Your task to perform on an android device: clear all cookies in the chrome app Image 0: 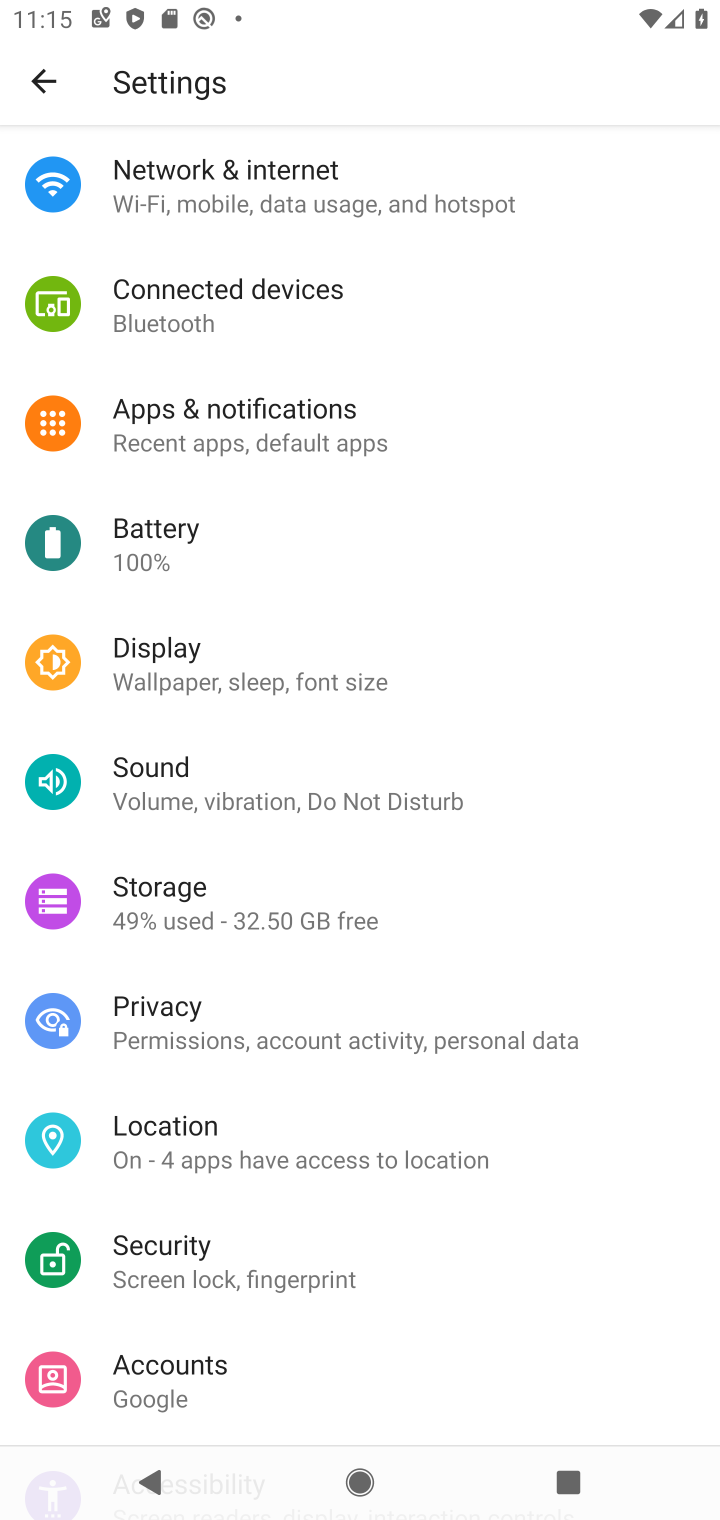
Step 0: press back button
Your task to perform on an android device: clear all cookies in the chrome app Image 1: 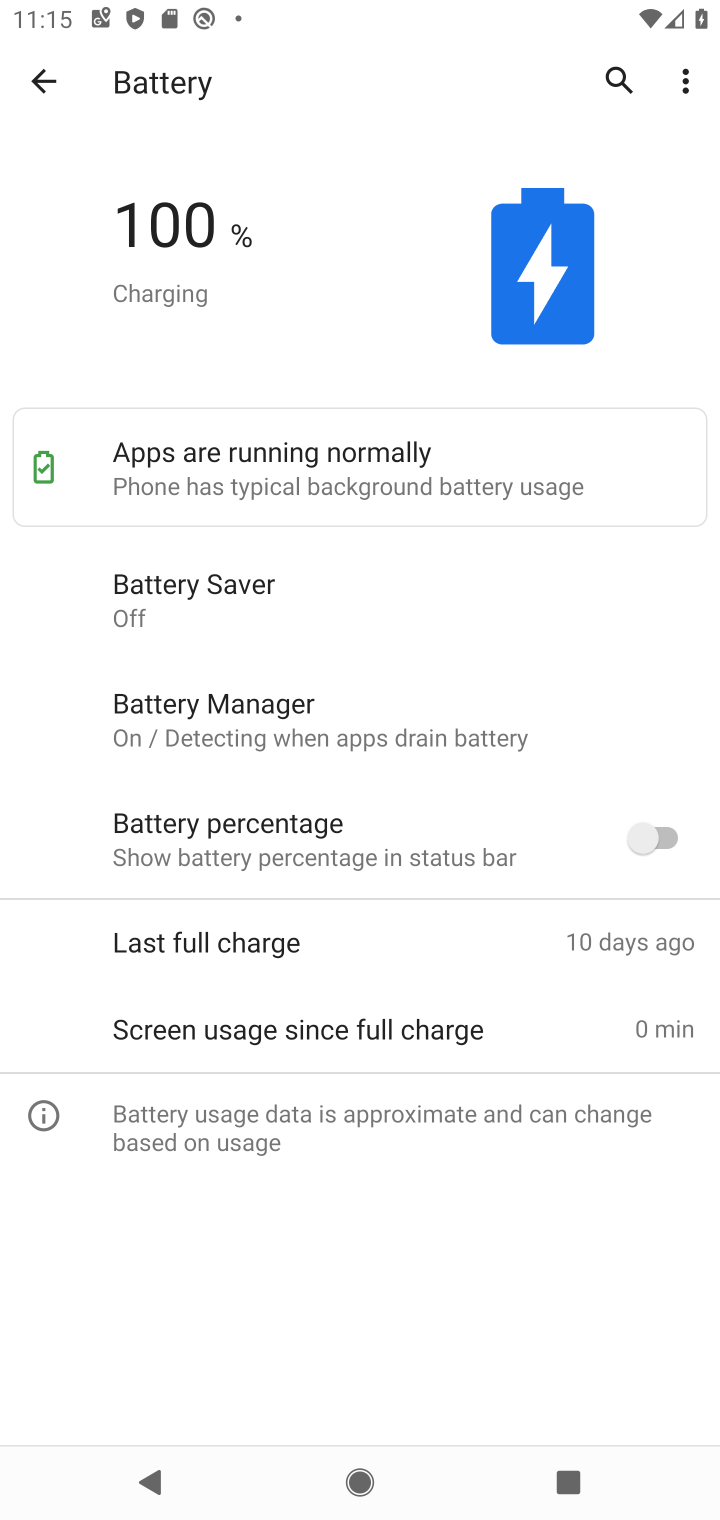
Step 1: press back button
Your task to perform on an android device: clear all cookies in the chrome app Image 2: 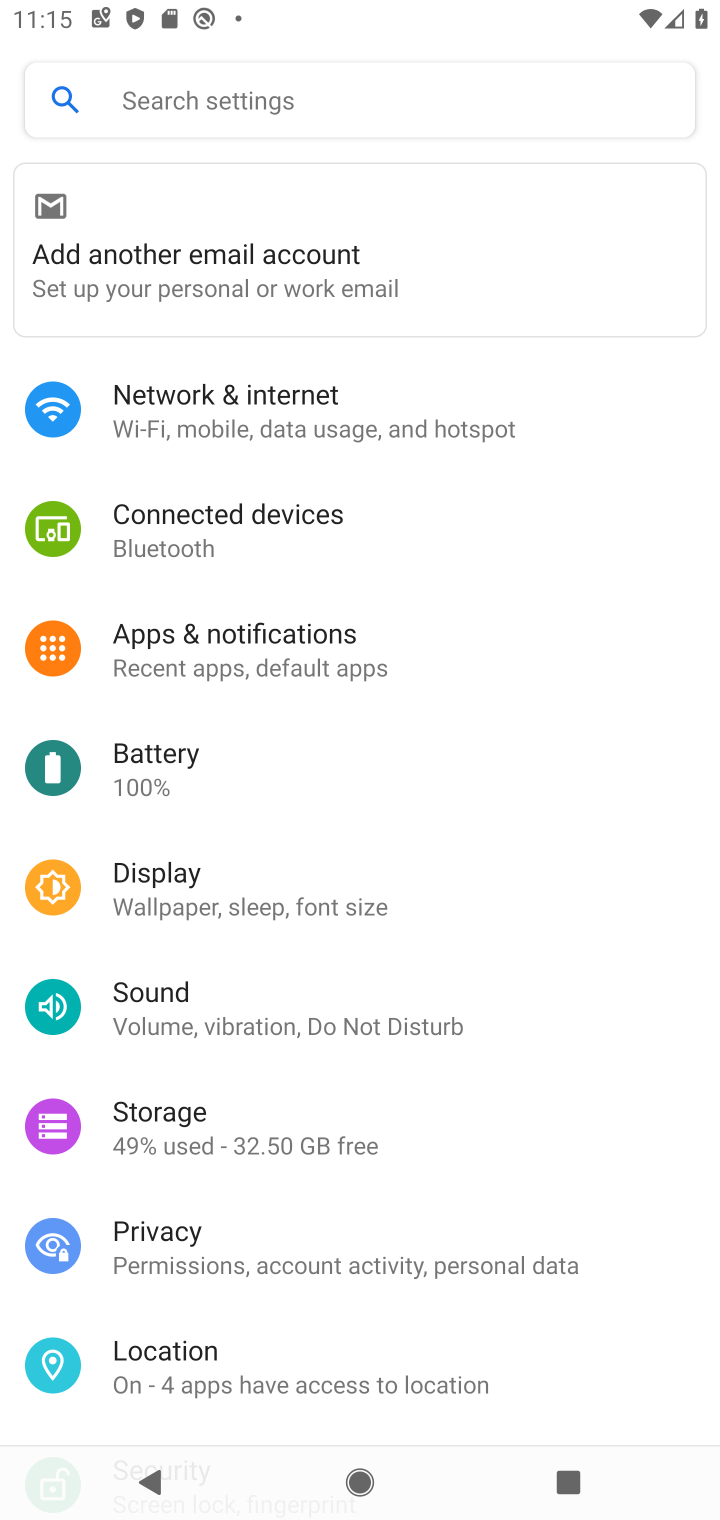
Step 2: press back button
Your task to perform on an android device: clear all cookies in the chrome app Image 3: 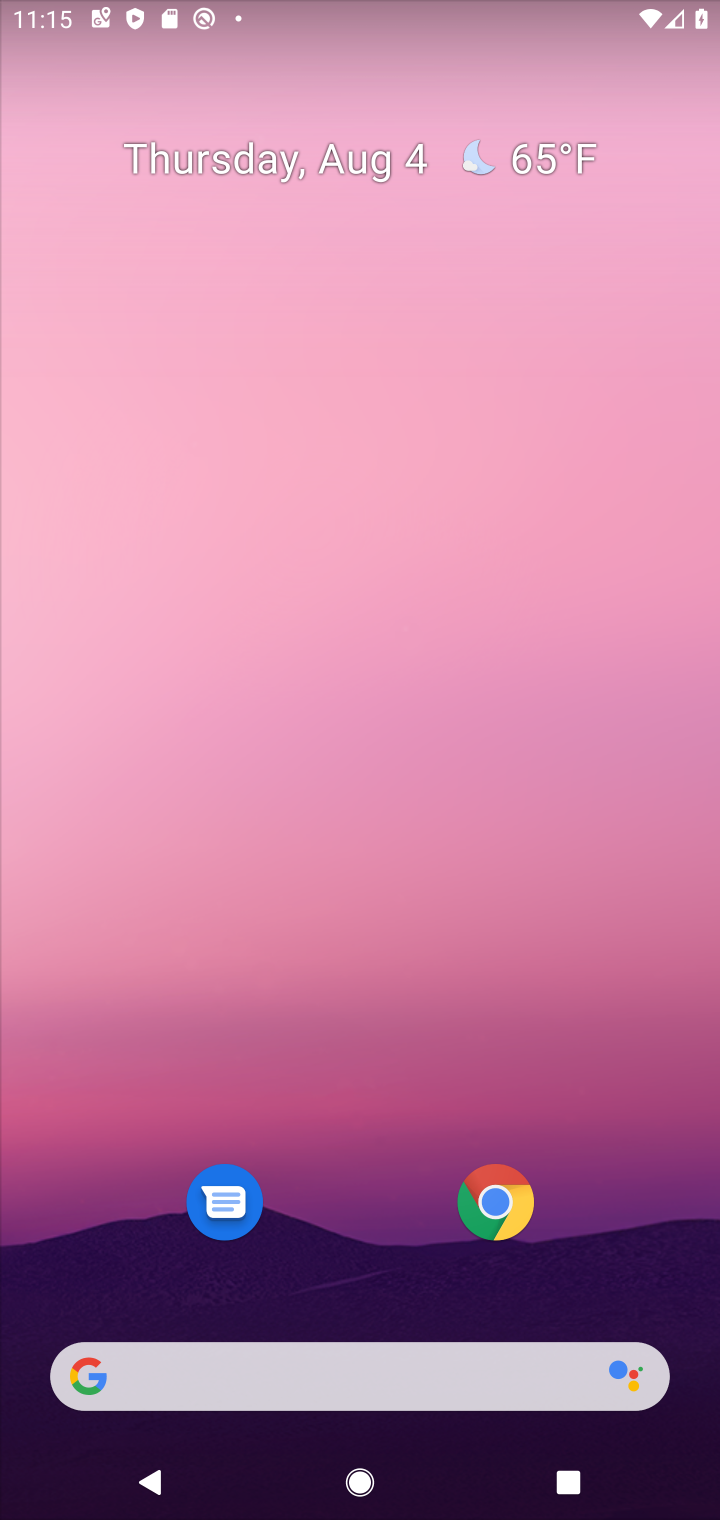
Step 3: click (537, 1202)
Your task to perform on an android device: clear all cookies in the chrome app Image 4: 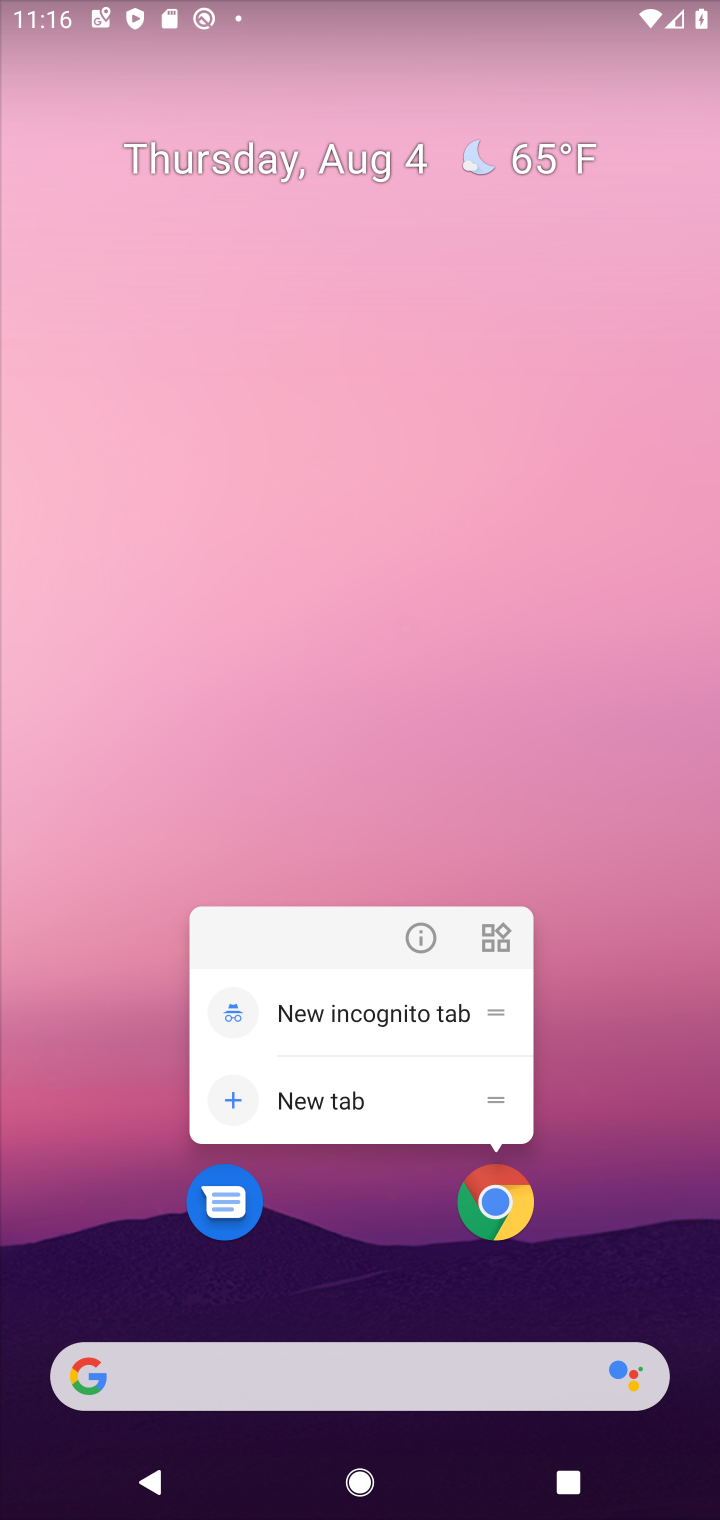
Step 4: click (528, 1201)
Your task to perform on an android device: clear all cookies in the chrome app Image 5: 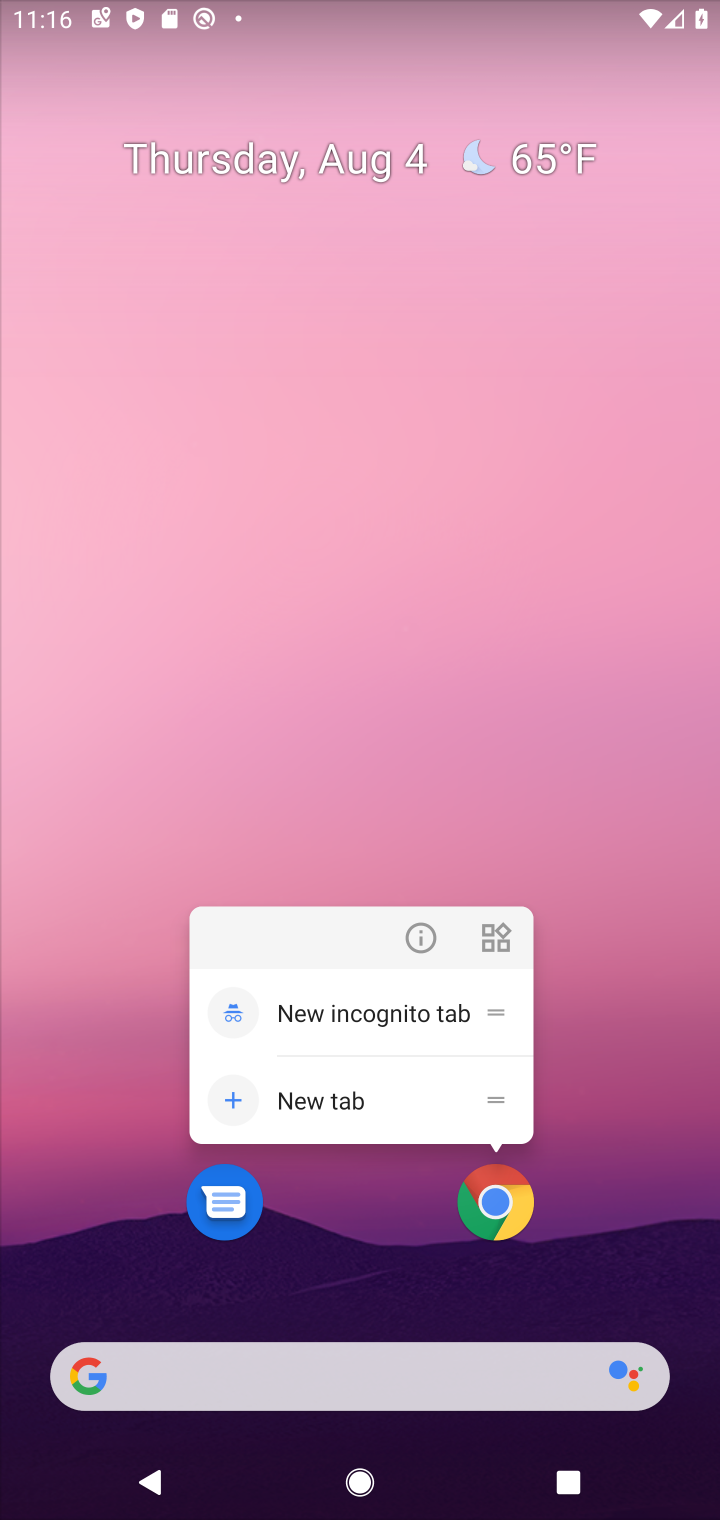
Step 5: click (508, 1203)
Your task to perform on an android device: clear all cookies in the chrome app Image 6: 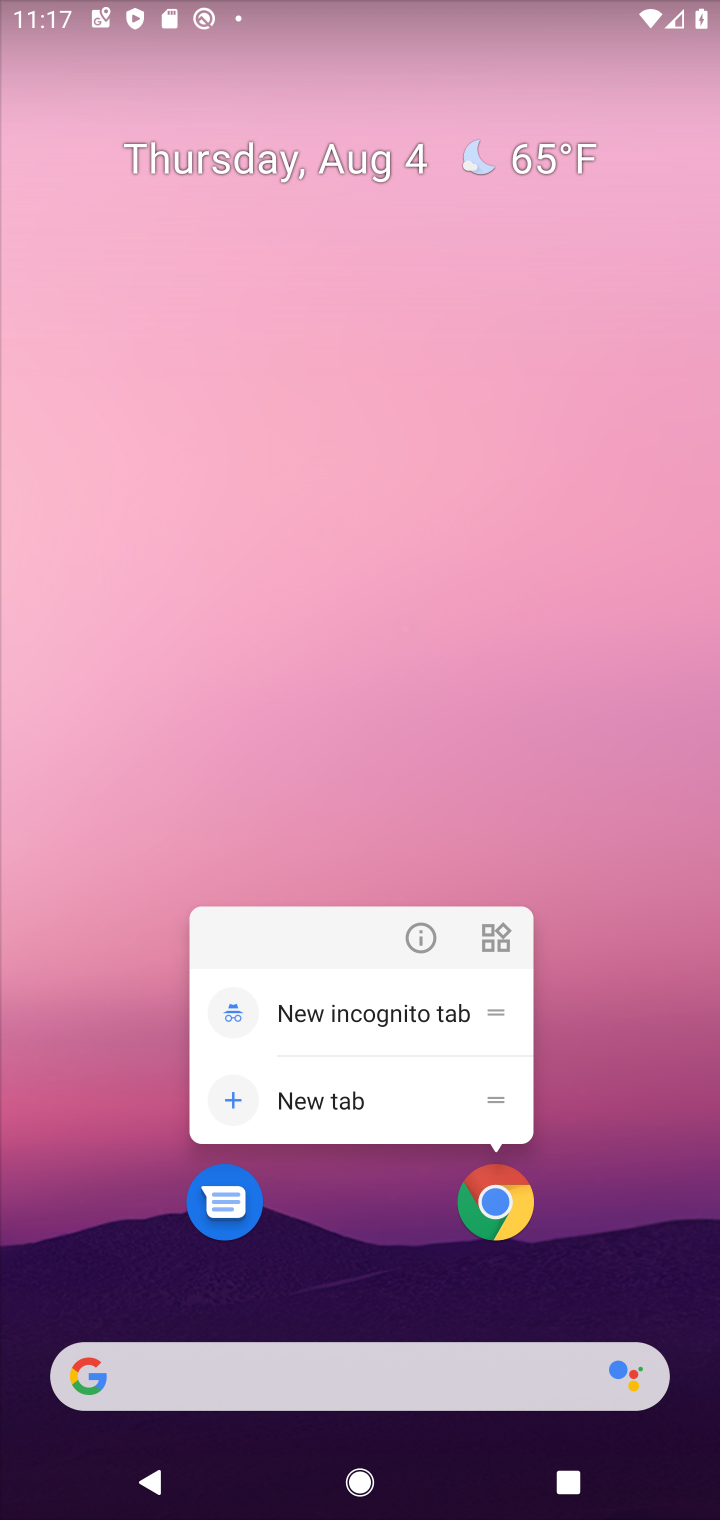
Step 6: click (459, 1223)
Your task to perform on an android device: clear all cookies in the chrome app Image 7: 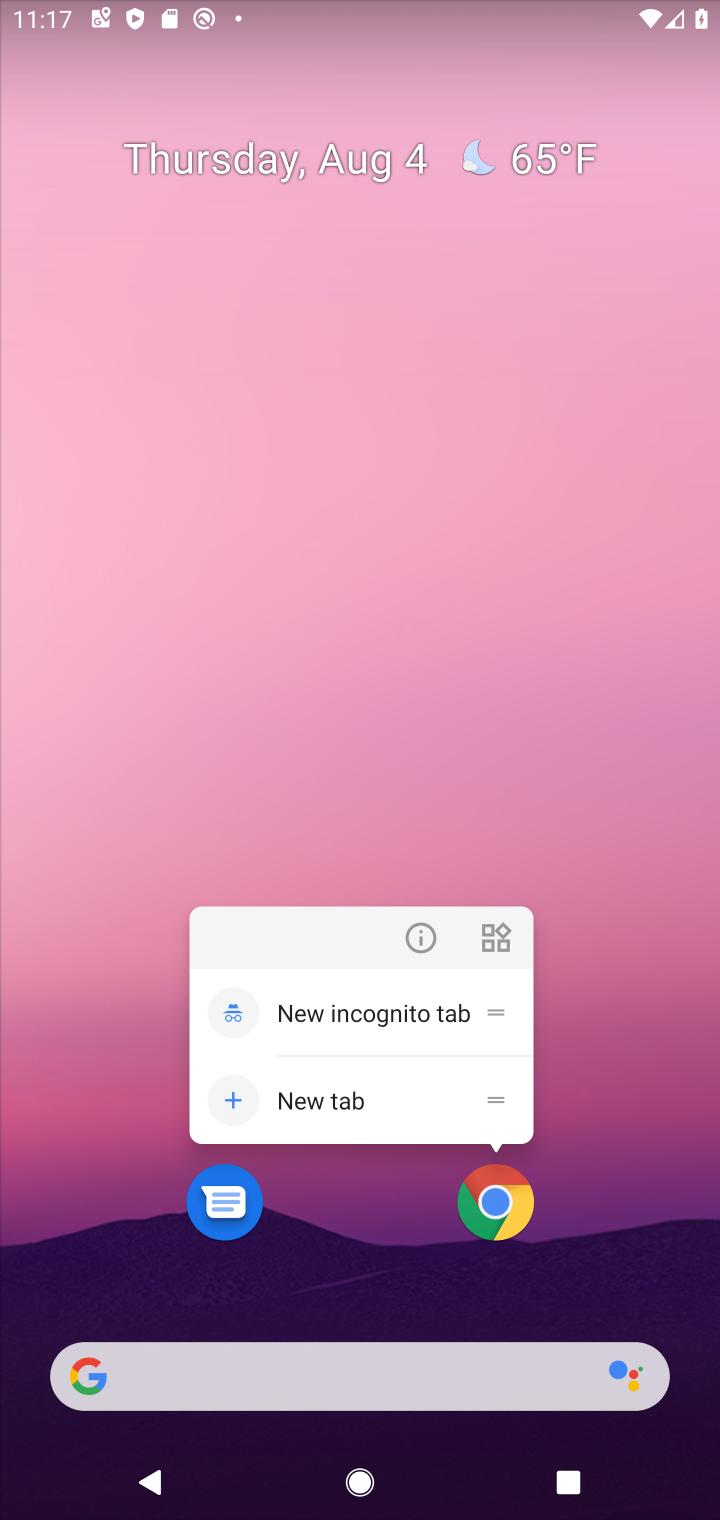
Step 7: click (499, 1184)
Your task to perform on an android device: clear all cookies in the chrome app Image 8: 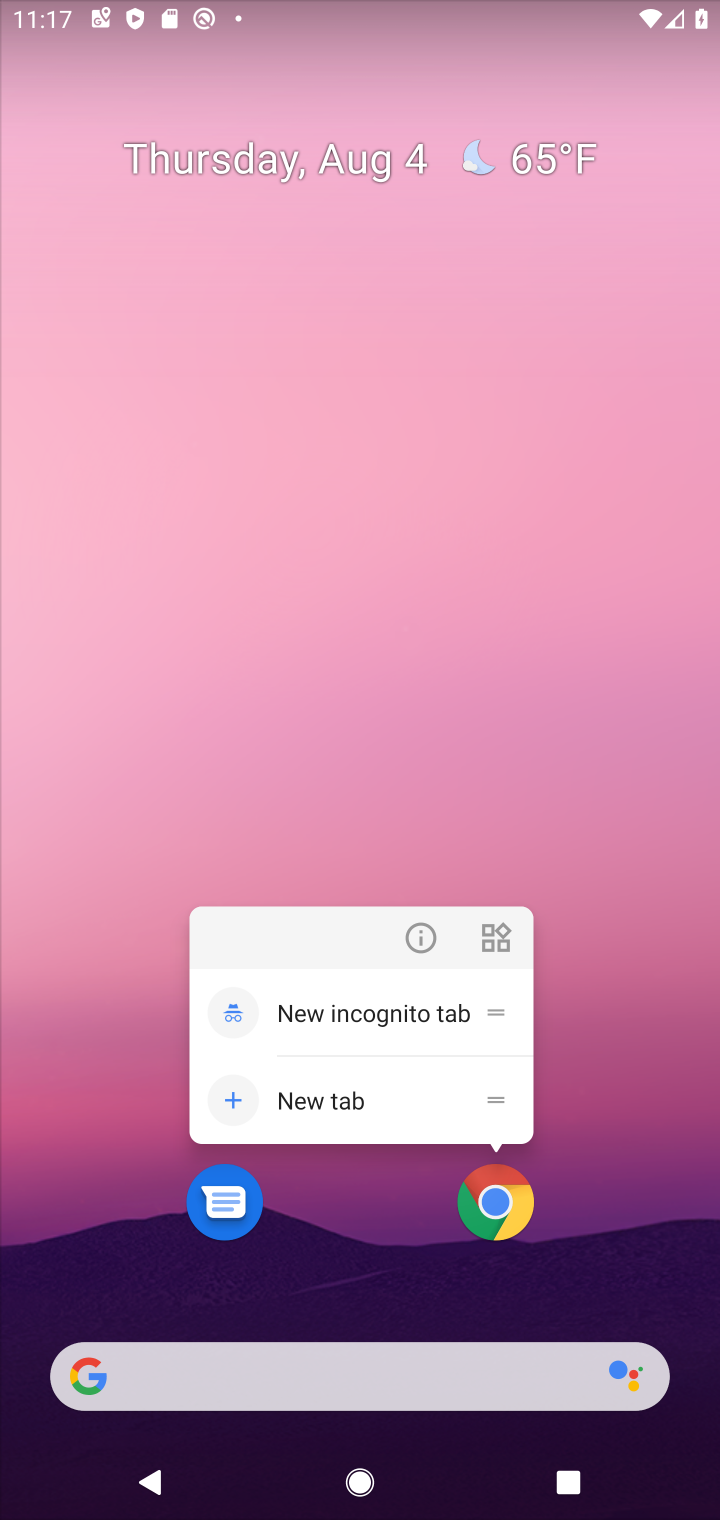
Step 8: click (499, 1184)
Your task to perform on an android device: clear all cookies in the chrome app Image 9: 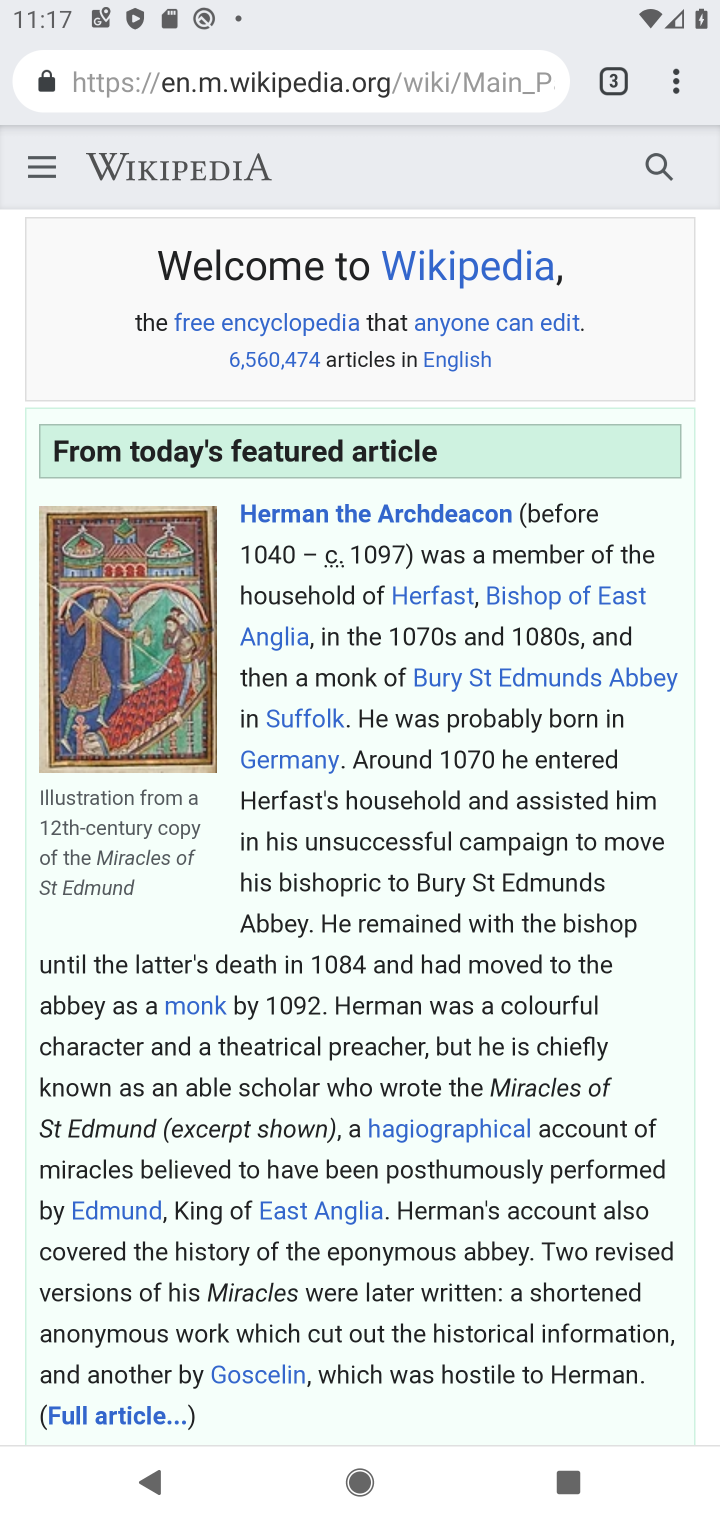
Step 9: drag from (660, 76) to (401, 563)
Your task to perform on an android device: clear all cookies in the chrome app Image 10: 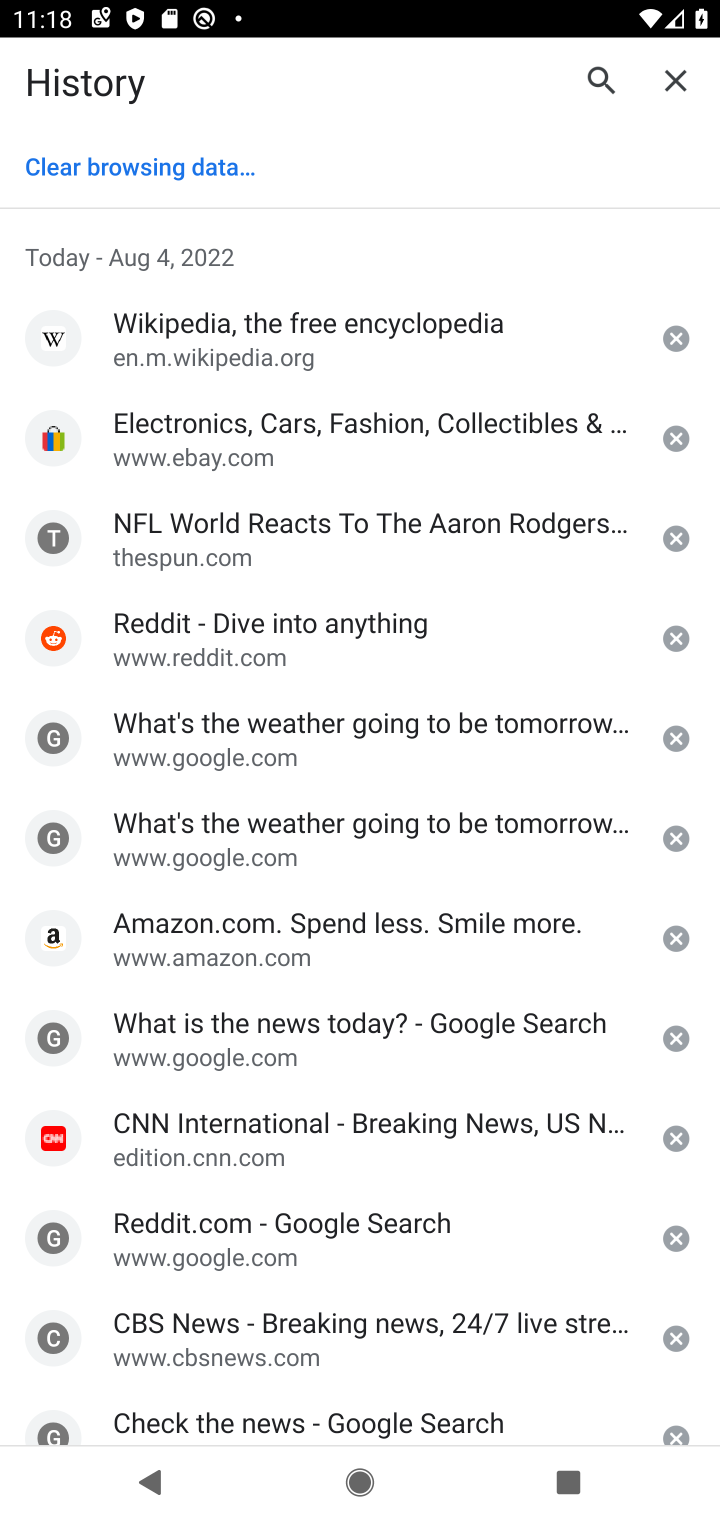
Step 10: click (243, 174)
Your task to perform on an android device: clear all cookies in the chrome app Image 11: 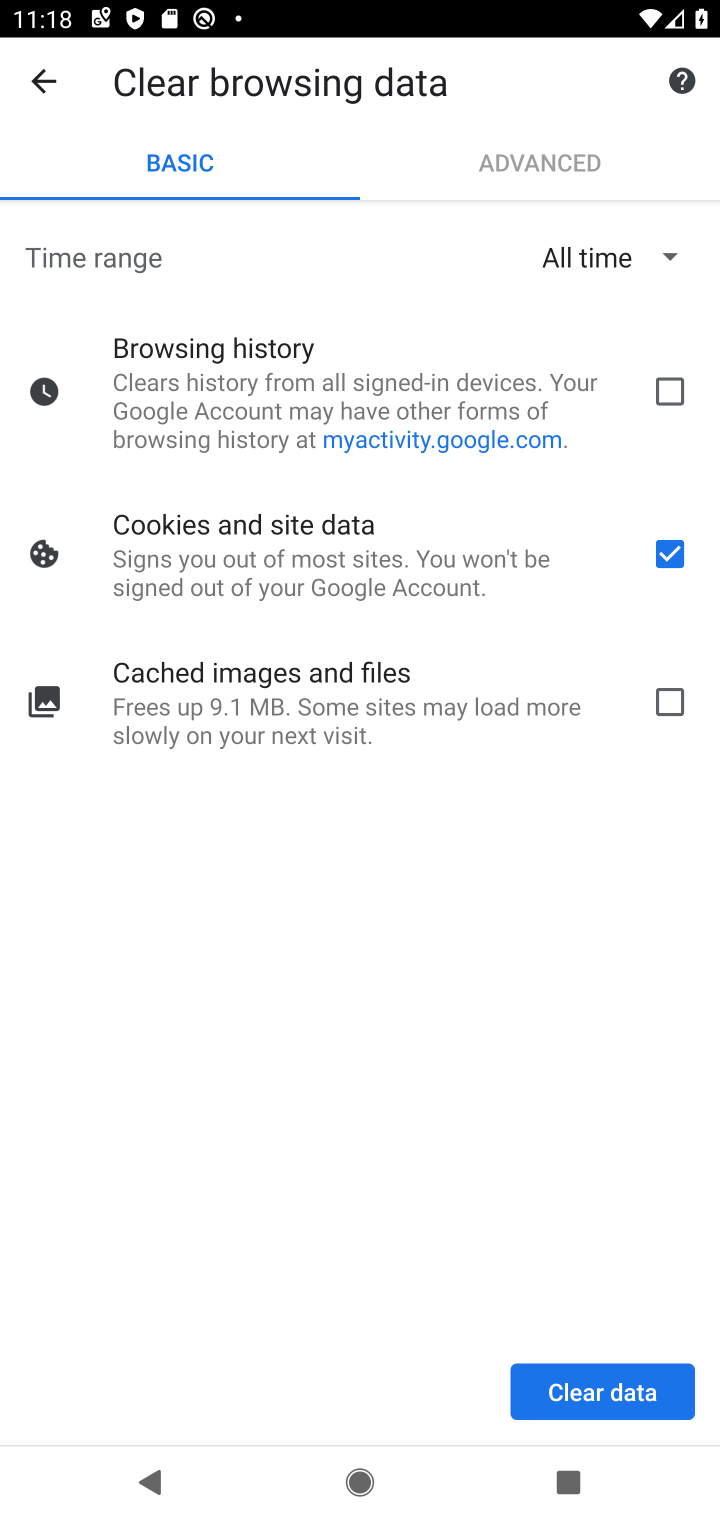
Step 11: click (567, 1405)
Your task to perform on an android device: clear all cookies in the chrome app Image 12: 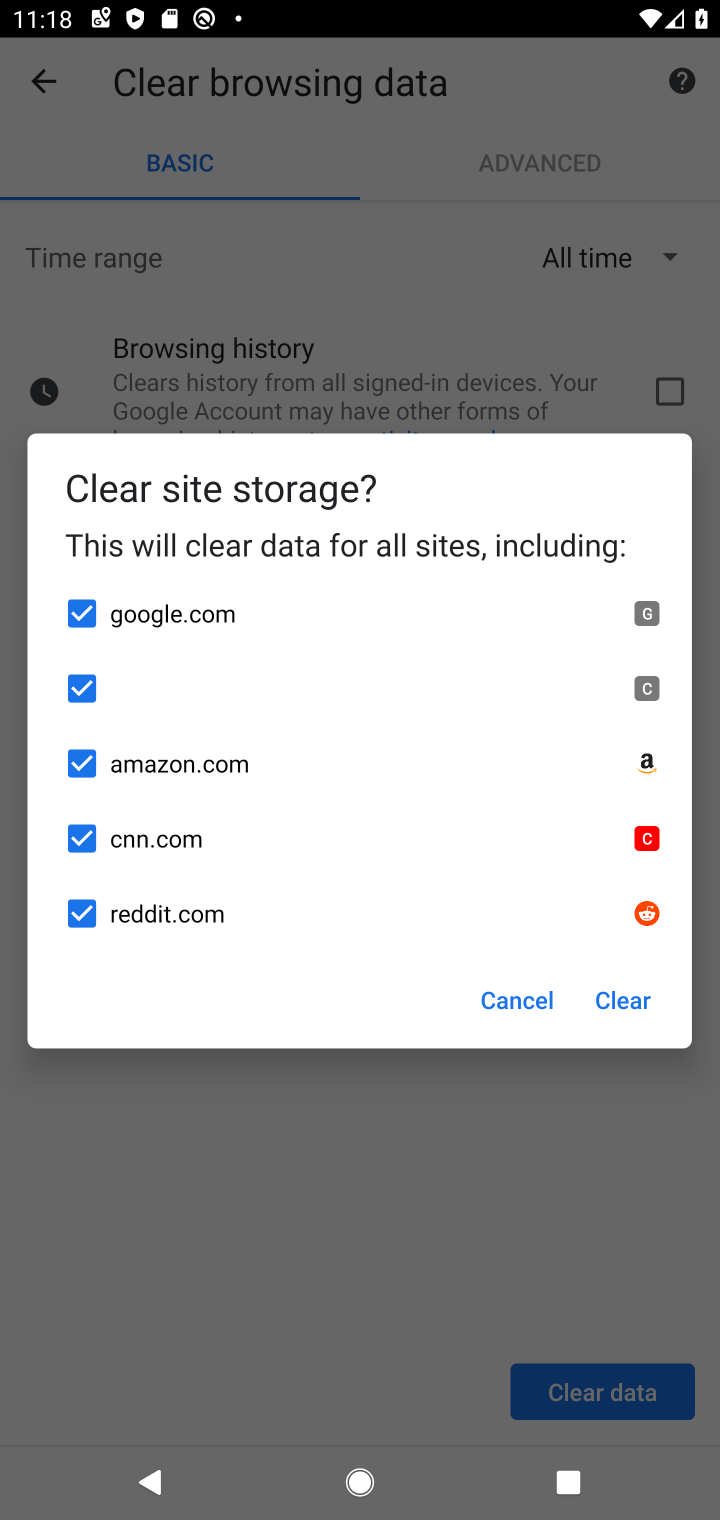
Step 12: click (625, 998)
Your task to perform on an android device: clear all cookies in the chrome app Image 13: 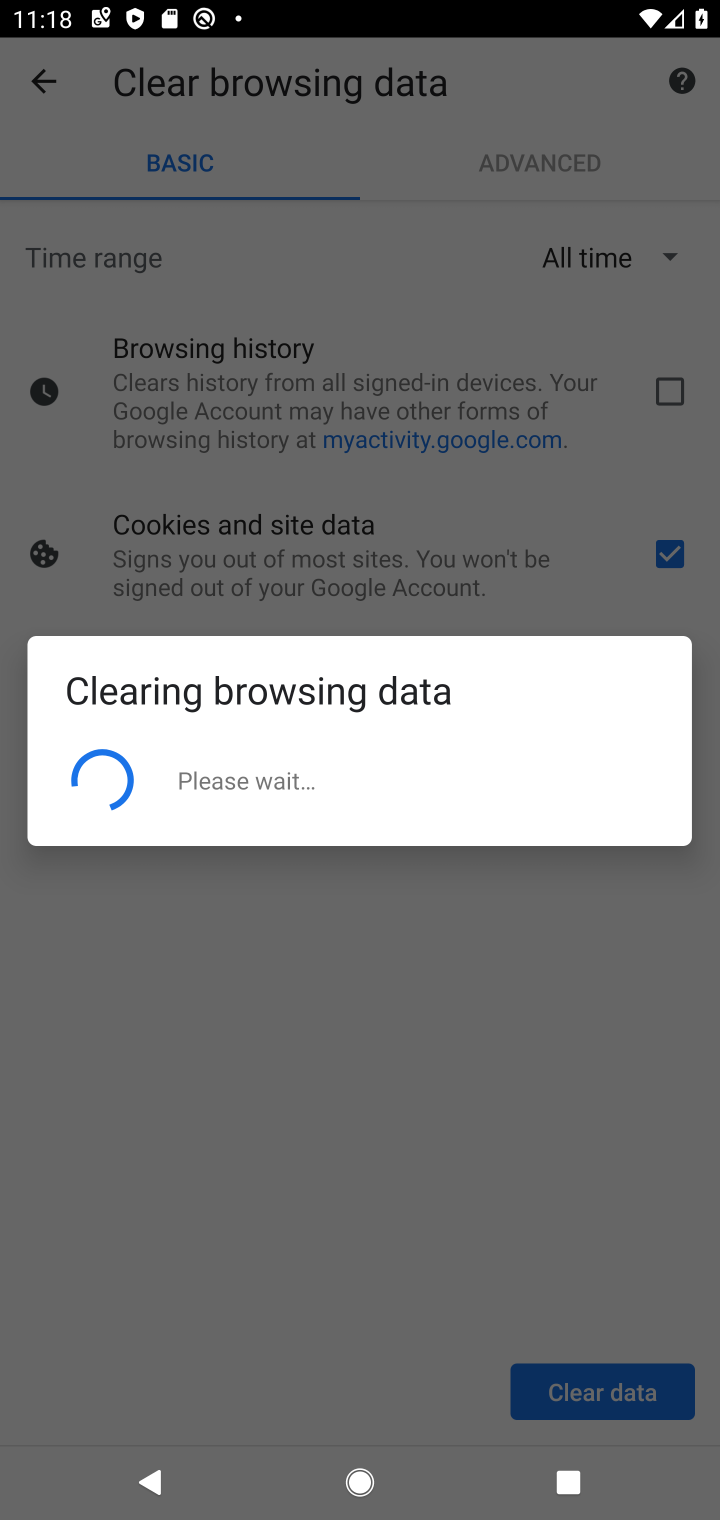
Step 13: task complete